Your task to perform on an android device: Is it going to rain tomorrow? Image 0: 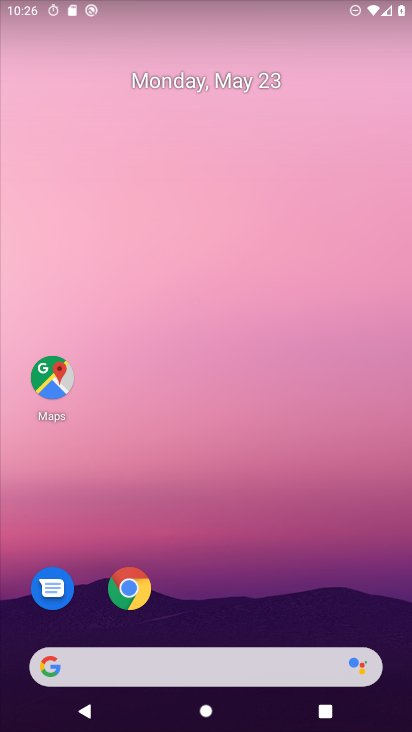
Step 0: drag from (0, 261) to (408, 254)
Your task to perform on an android device: Is it going to rain tomorrow? Image 1: 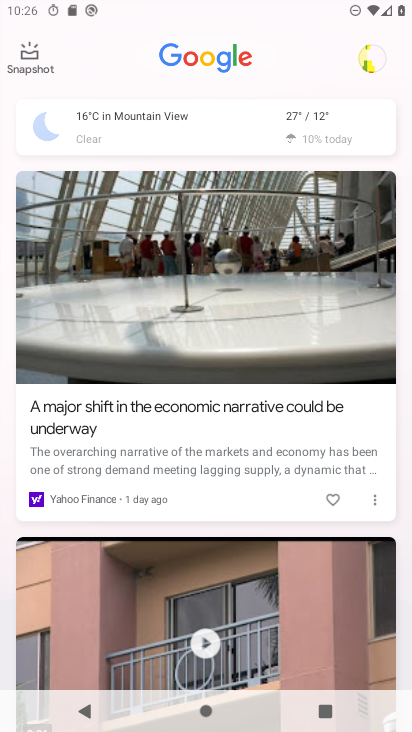
Step 1: click (283, 114)
Your task to perform on an android device: Is it going to rain tomorrow? Image 2: 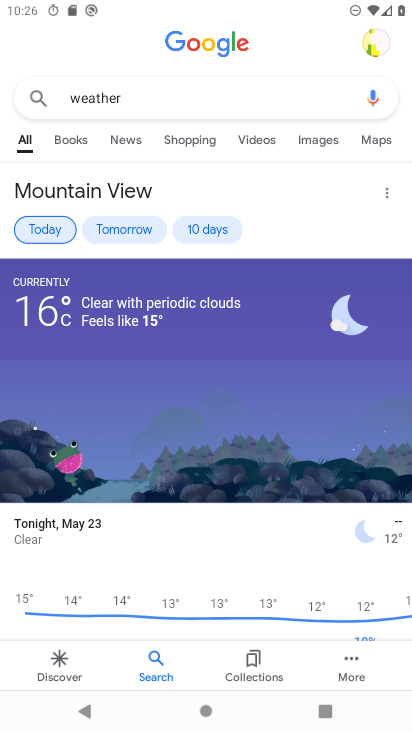
Step 2: click (133, 228)
Your task to perform on an android device: Is it going to rain tomorrow? Image 3: 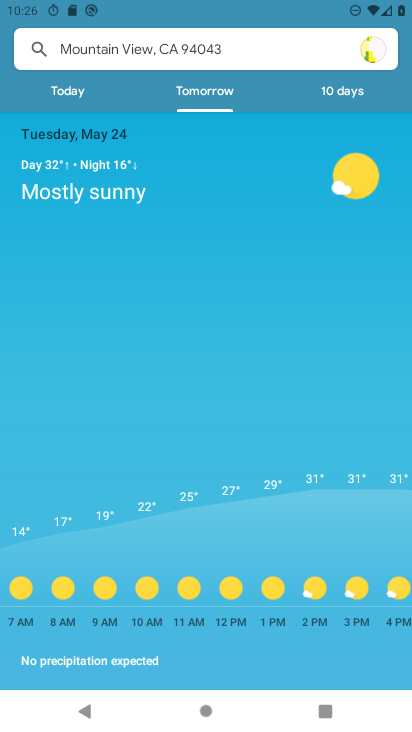
Step 3: task complete